Your task to perform on an android device: Go to Yahoo.com Image 0: 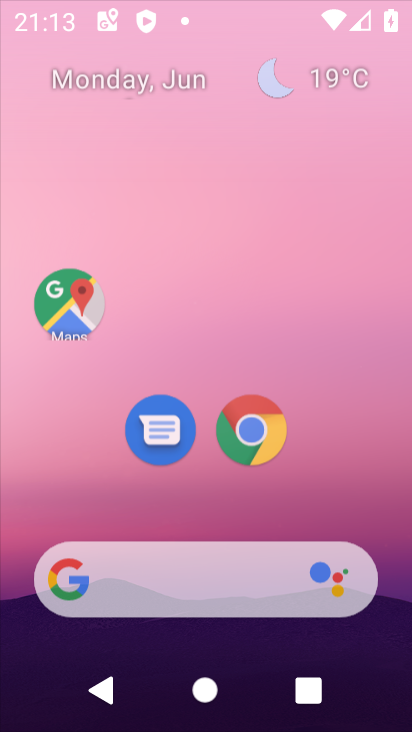
Step 0: press home button
Your task to perform on an android device: Go to Yahoo.com Image 1: 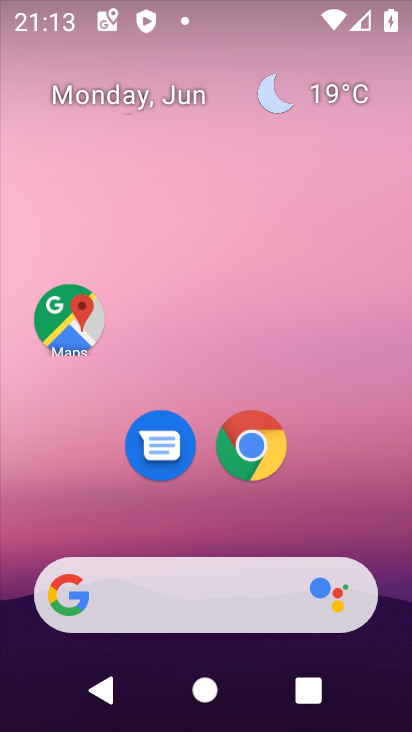
Step 1: drag from (2, 391) to (399, 385)
Your task to perform on an android device: Go to Yahoo.com Image 2: 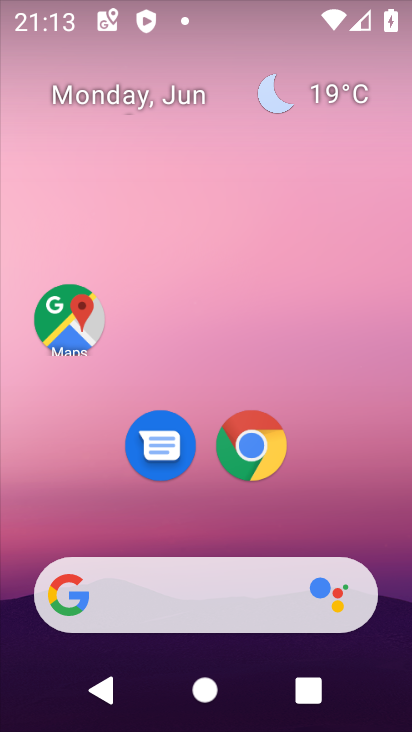
Step 2: click (248, 434)
Your task to perform on an android device: Go to Yahoo.com Image 3: 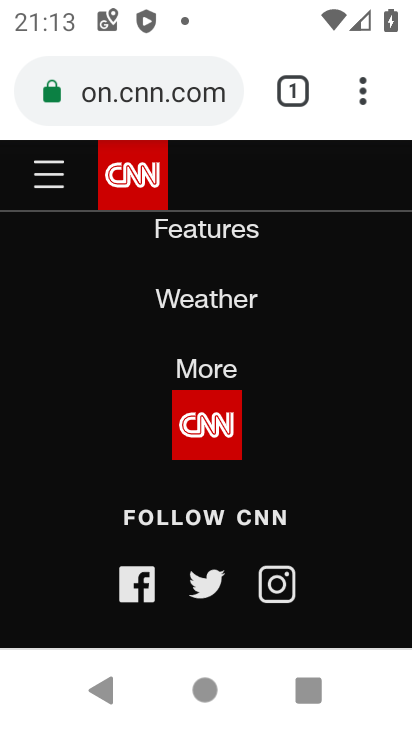
Step 3: click (297, 88)
Your task to perform on an android device: Go to Yahoo.com Image 4: 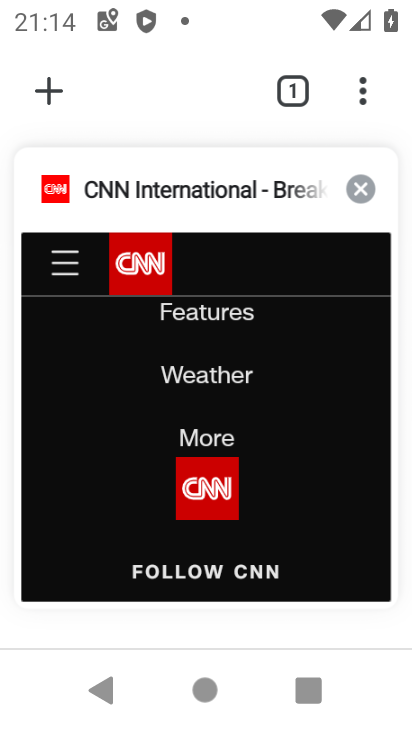
Step 4: click (54, 95)
Your task to perform on an android device: Go to Yahoo.com Image 5: 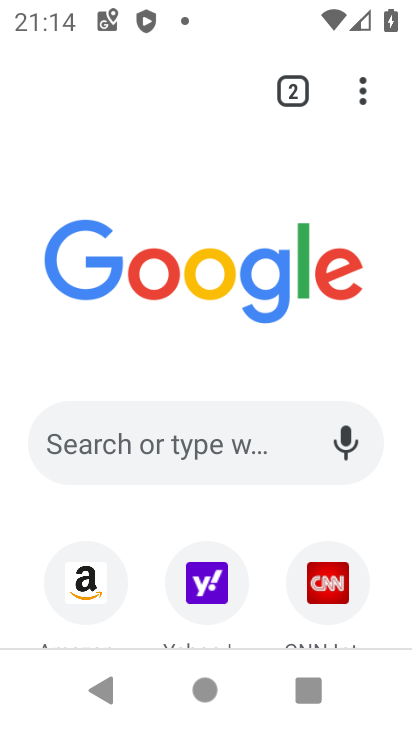
Step 5: click (190, 566)
Your task to perform on an android device: Go to Yahoo.com Image 6: 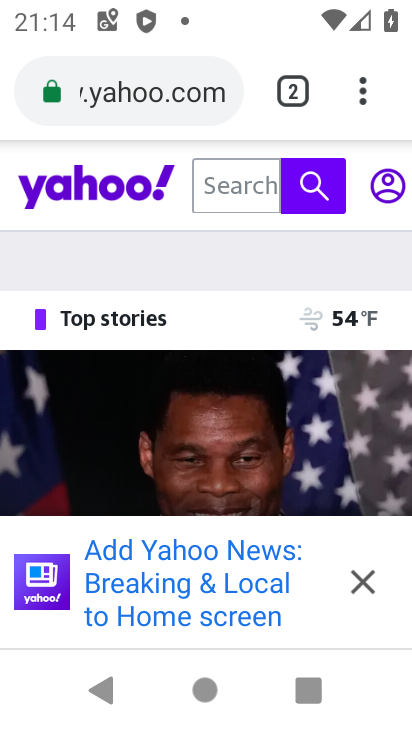
Step 6: click (358, 581)
Your task to perform on an android device: Go to Yahoo.com Image 7: 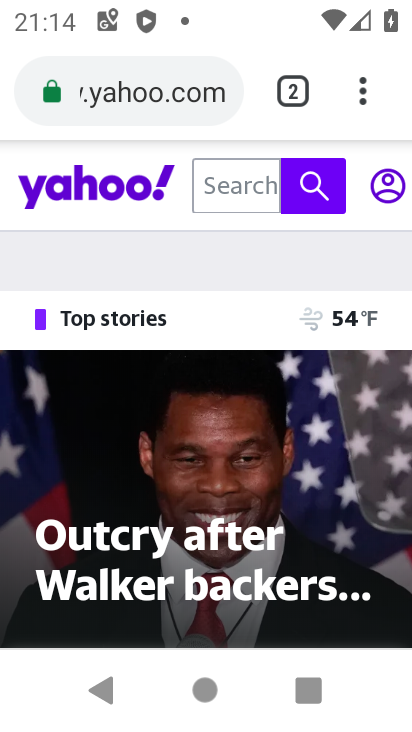
Step 7: task complete